Your task to perform on an android device: toggle translation in the chrome app Image 0: 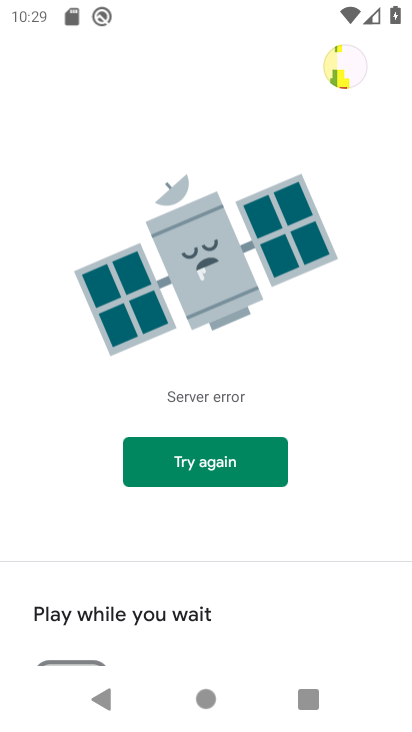
Step 0: press home button
Your task to perform on an android device: toggle translation in the chrome app Image 1: 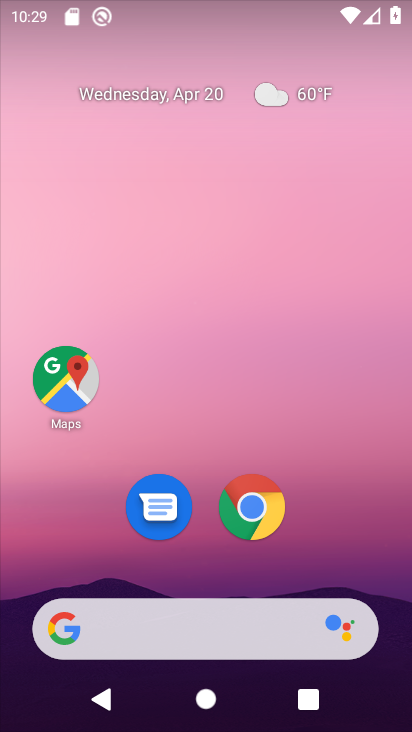
Step 1: click (251, 501)
Your task to perform on an android device: toggle translation in the chrome app Image 2: 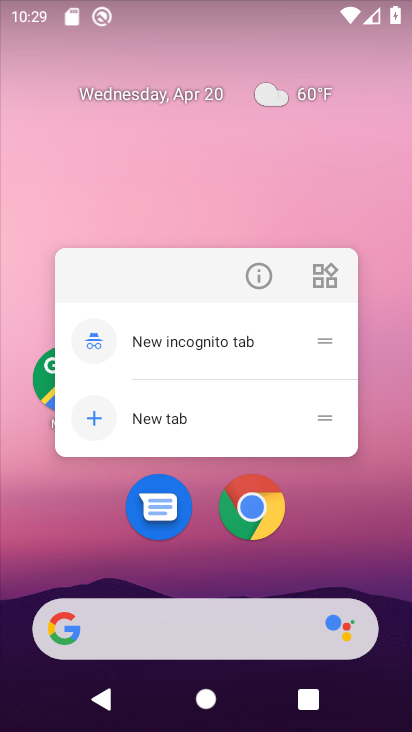
Step 2: click (249, 506)
Your task to perform on an android device: toggle translation in the chrome app Image 3: 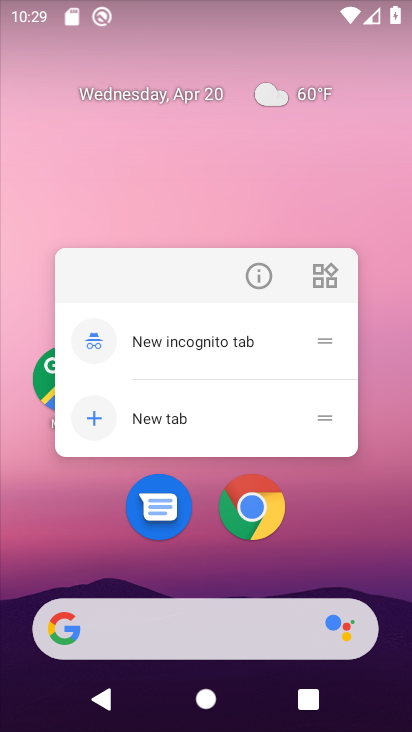
Step 3: click (239, 266)
Your task to perform on an android device: toggle translation in the chrome app Image 4: 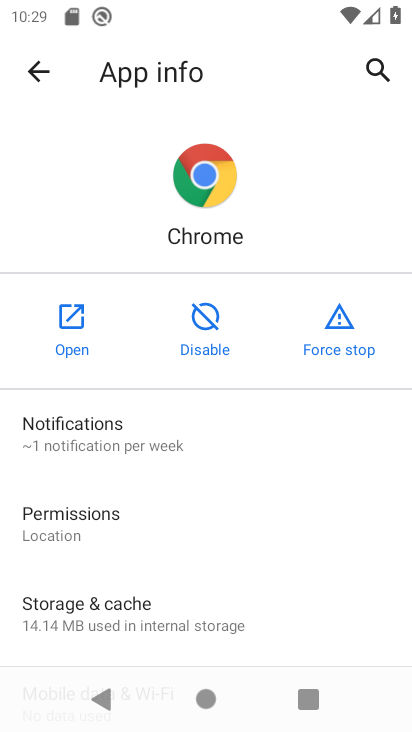
Step 4: click (74, 332)
Your task to perform on an android device: toggle translation in the chrome app Image 5: 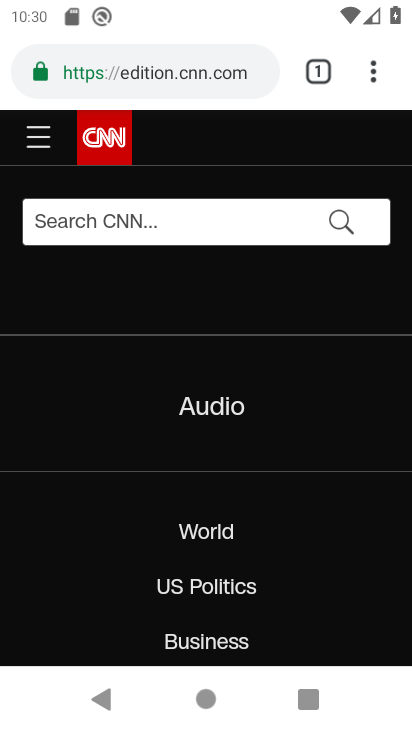
Step 5: click (375, 71)
Your task to perform on an android device: toggle translation in the chrome app Image 6: 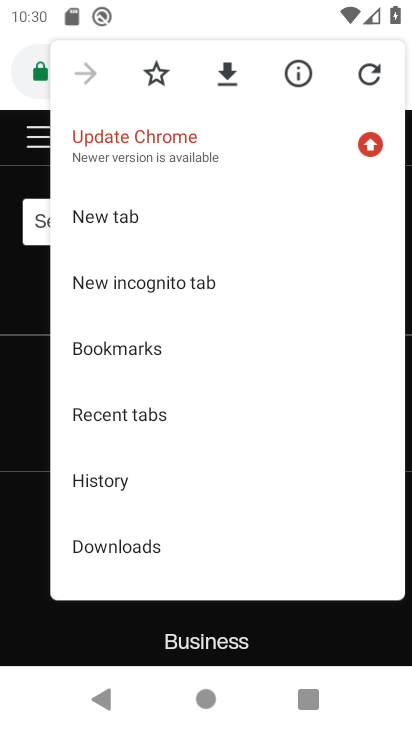
Step 6: drag from (159, 522) to (159, 393)
Your task to perform on an android device: toggle translation in the chrome app Image 7: 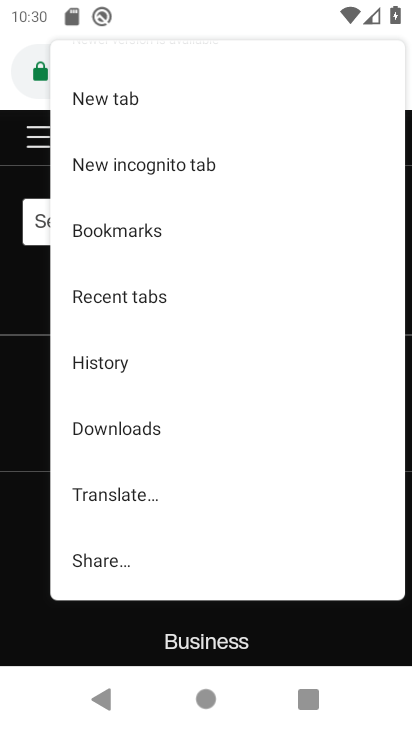
Step 7: drag from (137, 545) to (166, 355)
Your task to perform on an android device: toggle translation in the chrome app Image 8: 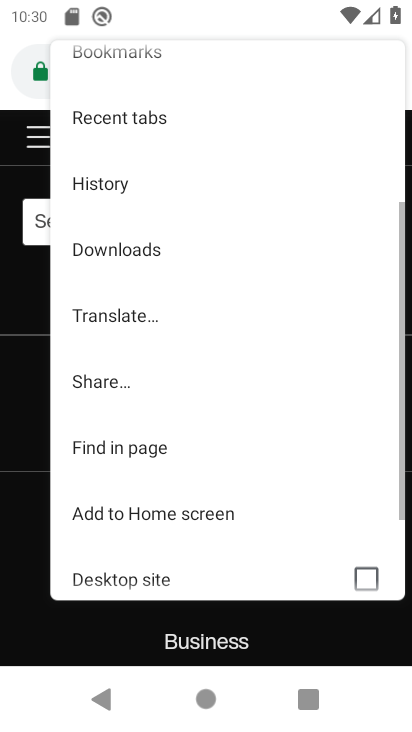
Step 8: drag from (132, 516) to (203, 316)
Your task to perform on an android device: toggle translation in the chrome app Image 9: 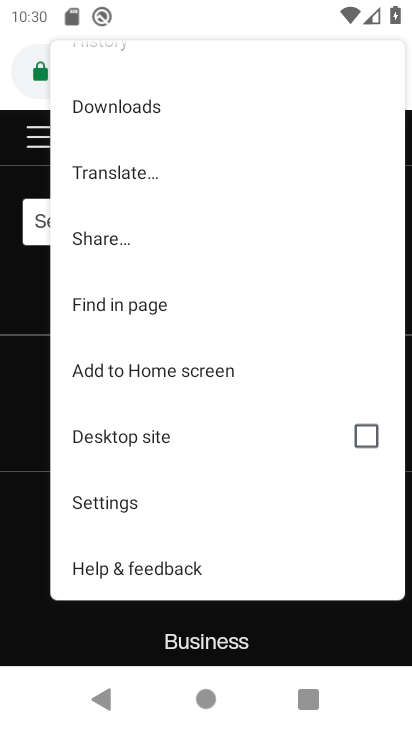
Step 9: click (100, 503)
Your task to perform on an android device: toggle translation in the chrome app Image 10: 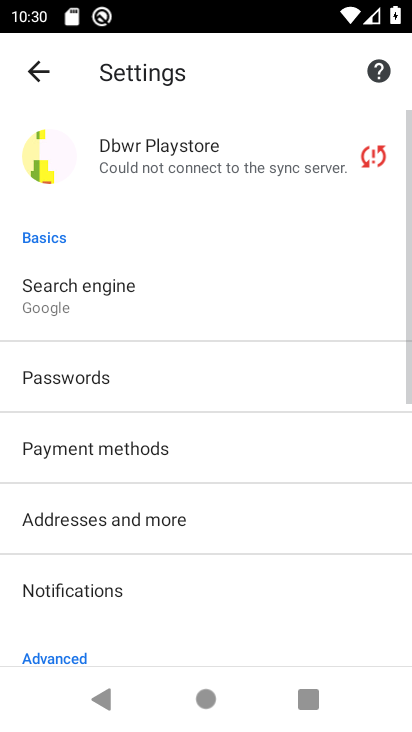
Step 10: drag from (137, 463) to (170, 292)
Your task to perform on an android device: toggle translation in the chrome app Image 11: 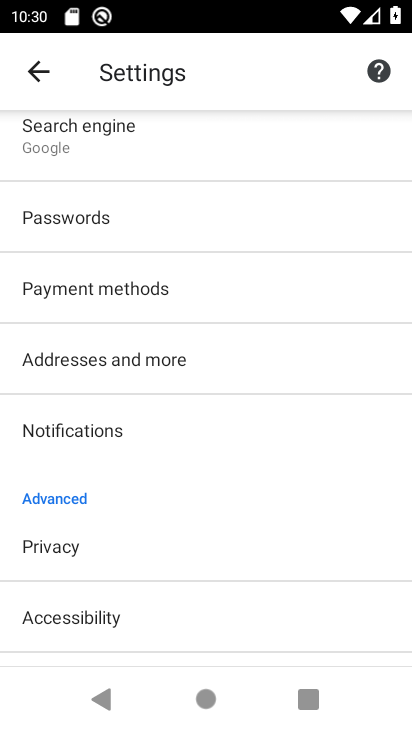
Step 11: drag from (136, 597) to (172, 303)
Your task to perform on an android device: toggle translation in the chrome app Image 12: 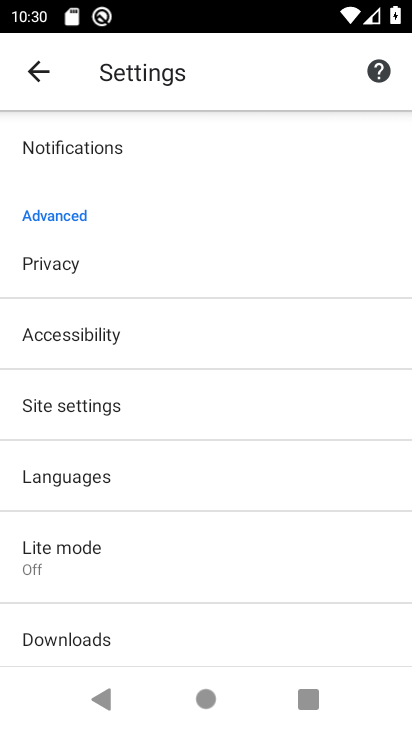
Step 12: click (59, 503)
Your task to perform on an android device: toggle translation in the chrome app Image 13: 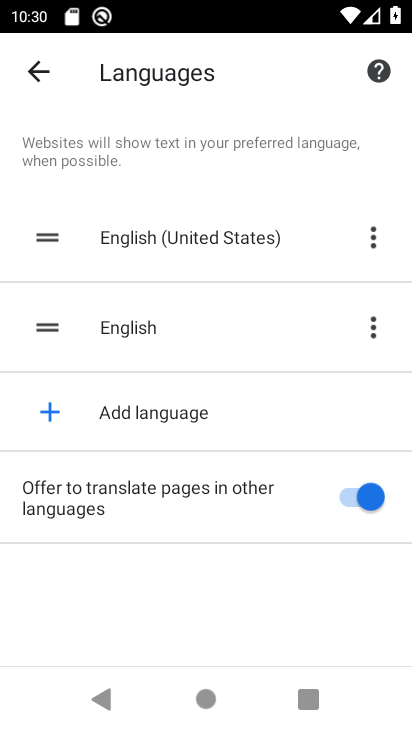
Step 13: click (353, 495)
Your task to perform on an android device: toggle translation in the chrome app Image 14: 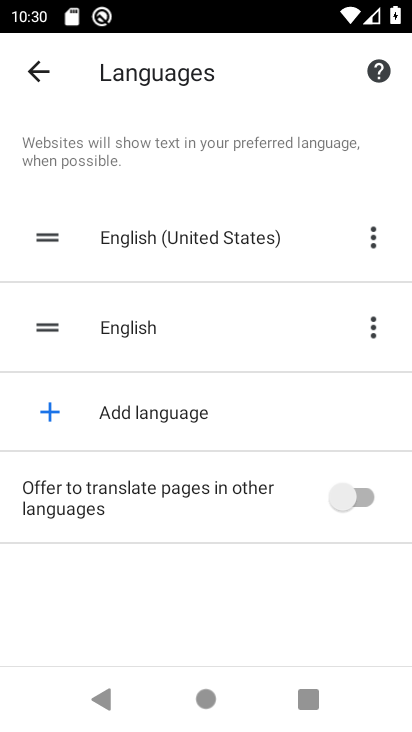
Step 14: task complete